Your task to perform on an android device: turn on the 12-hour format for clock Image 0: 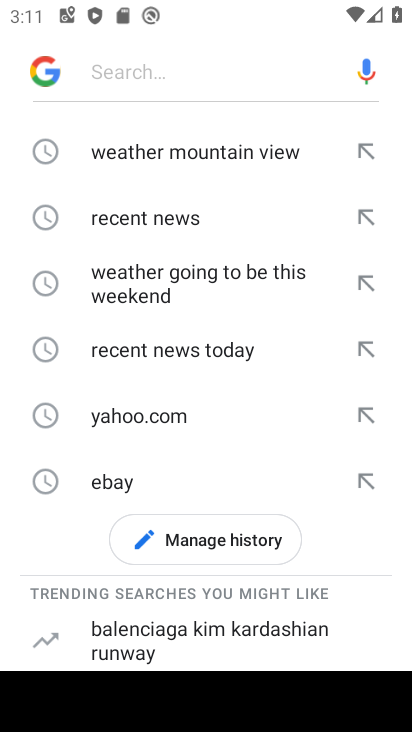
Step 0: press home button
Your task to perform on an android device: turn on the 12-hour format for clock Image 1: 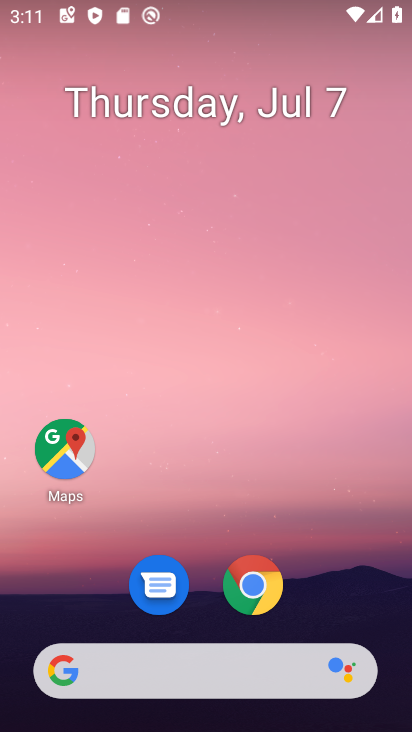
Step 1: drag from (221, 502) to (282, 45)
Your task to perform on an android device: turn on the 12-hour format for clock Image 2: 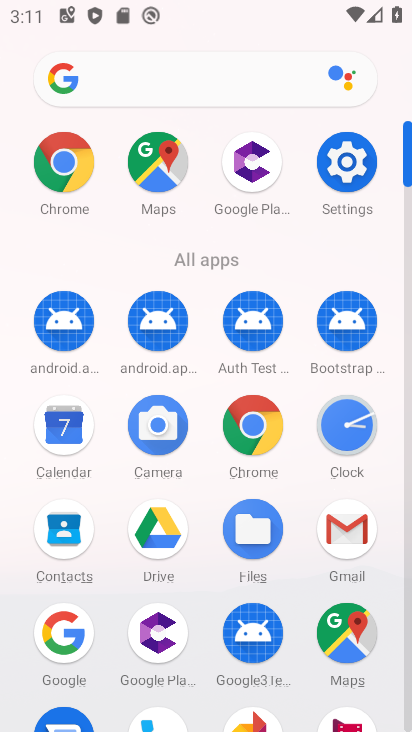
Step 2: click (336, 430)
Your task to perform on an android device: turn on the 12-hour format for clock Image 3: 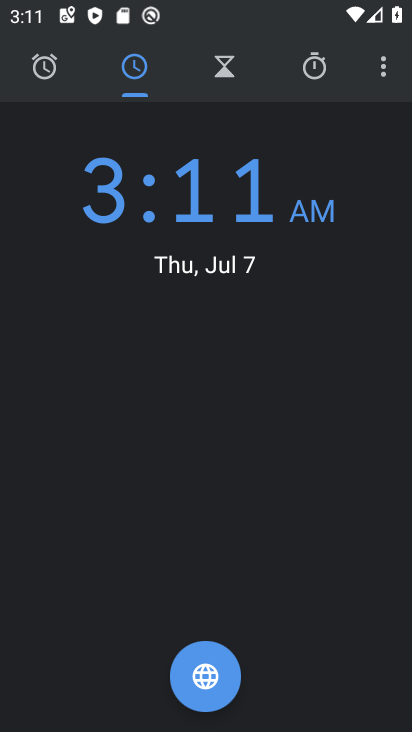
Step 3: click (382, 70)
Your task to perform on an android device: turn on the 12-hour format for clock Image 4: 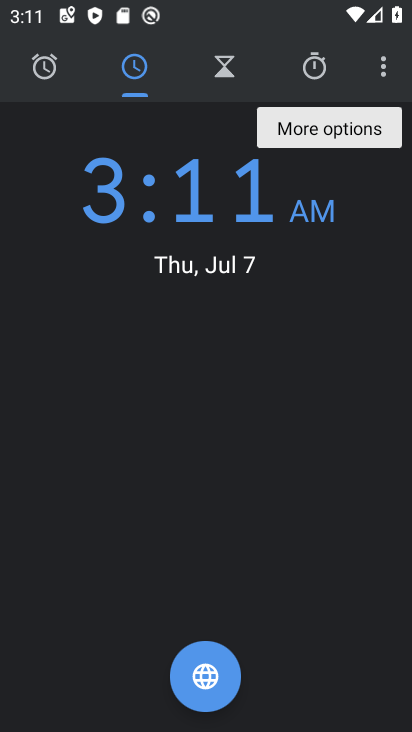
Step 4: click (387, 69)
Your task to perform on an android device: turn on the 12-hour format for clock Image 5: 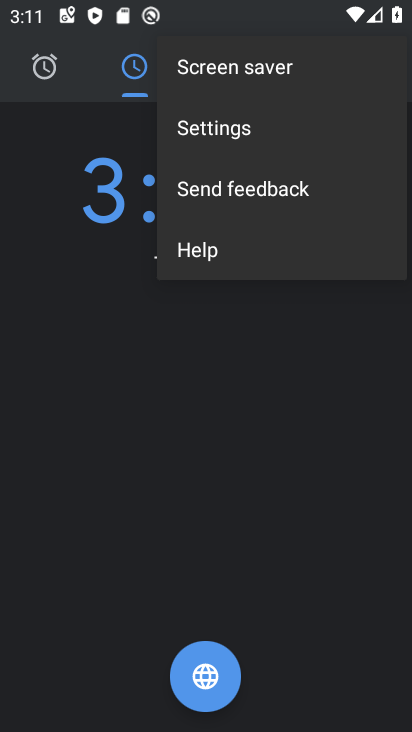
Step 5: click (249, 135)
Your task to perform on an android device: turn on the 12-hour format for clock Image 6: 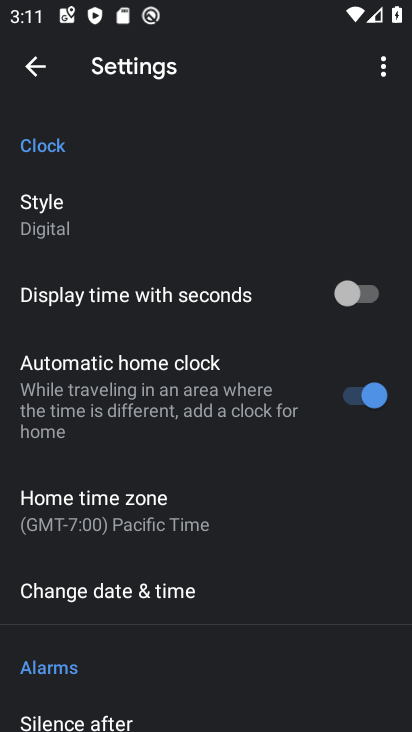
Step 6: click (228, 591)
Your task to perform on an android device: turn on the 12-hour format for clock Image 7: 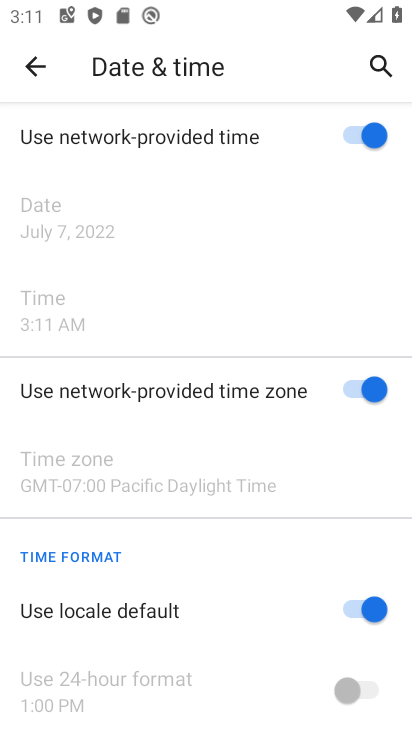
Step 7: task complete